Your task to perform on an android device: Search for sushi restaurants on Maps Image 0: 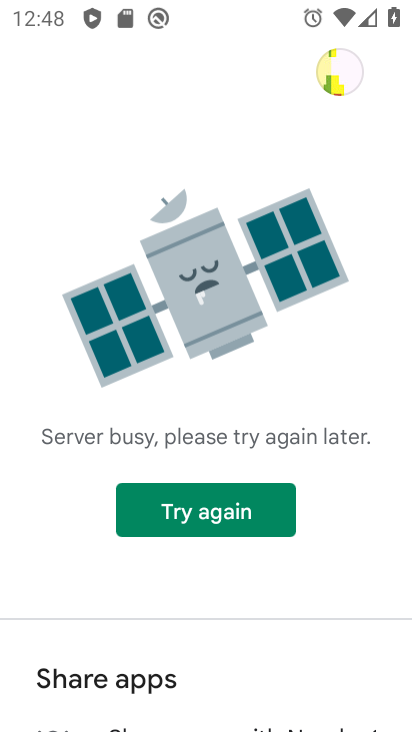
Step 0: press back button
Your task to perform on an android device: Search for sushi restaurants on Maps Image 1: 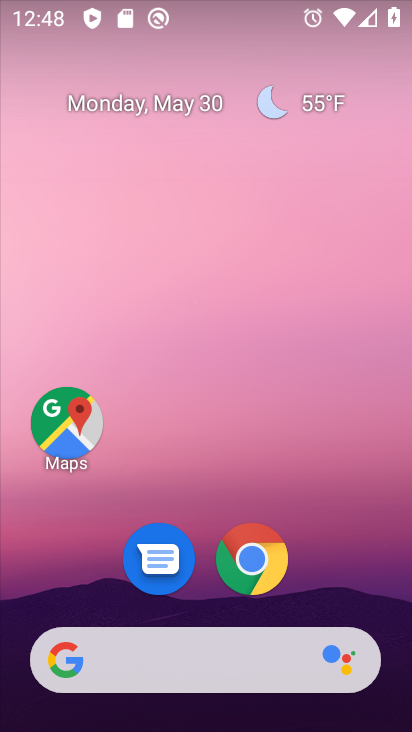
Step 1: click (71, 424)
Your task to perform on an android device: Search for sushi restaurants on Maps Image 2: 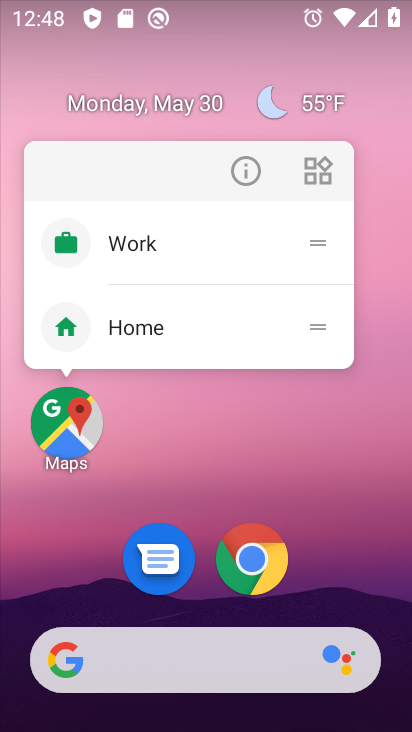
Step 2: click (71, 424)
Your task to perform on an android device: Search for sushi restaurants on Maps Image 3: 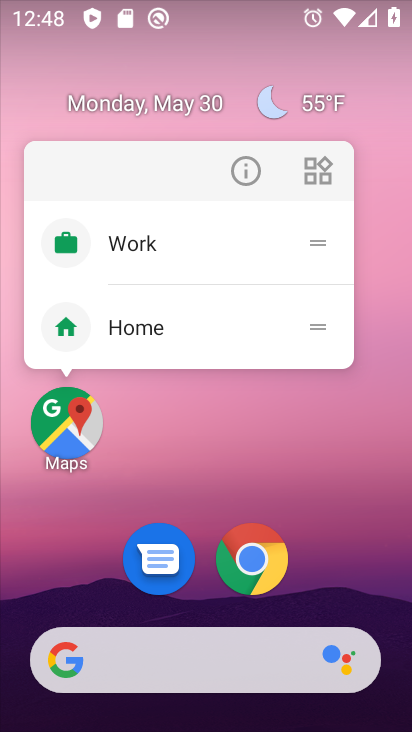
Step 3: click (52, 420)
Your task to perform on an android device: Search for sushi restaurants on Maps Image 4: 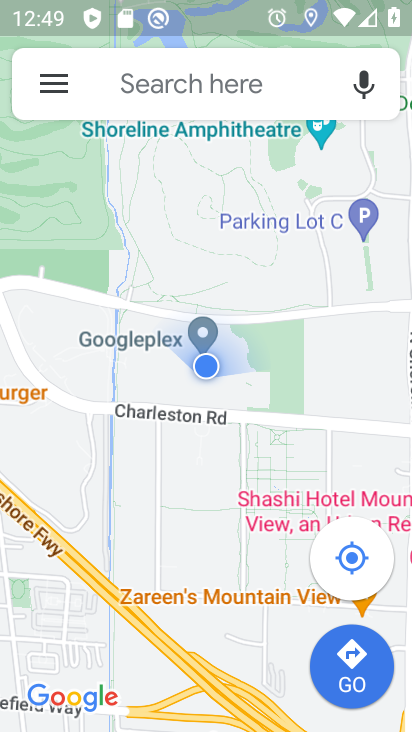
Step 4: click (167, 79)
Your task to perform on an android device: Search for sushi restaurants on Maps Image 5: 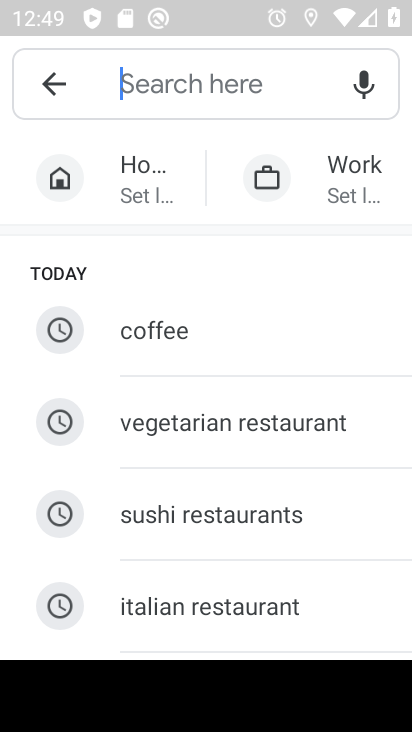
Step 5: click (196, 523)
Your task to perform on an android device: Search for sushi restaurants on Maps Image 6: 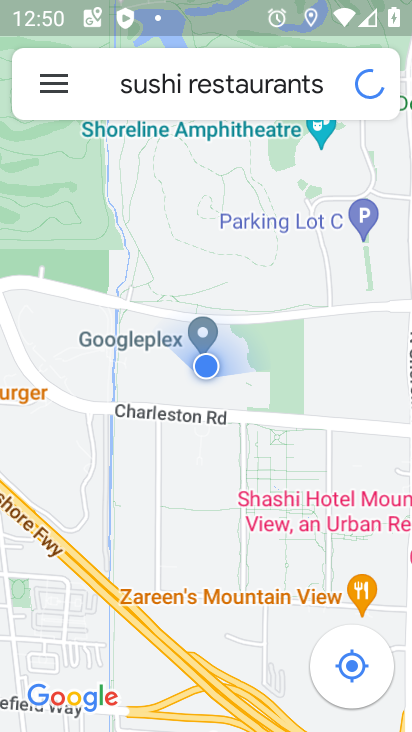
Step 6: task complete